Your task to perform on an android device: Go to settings Image 0: 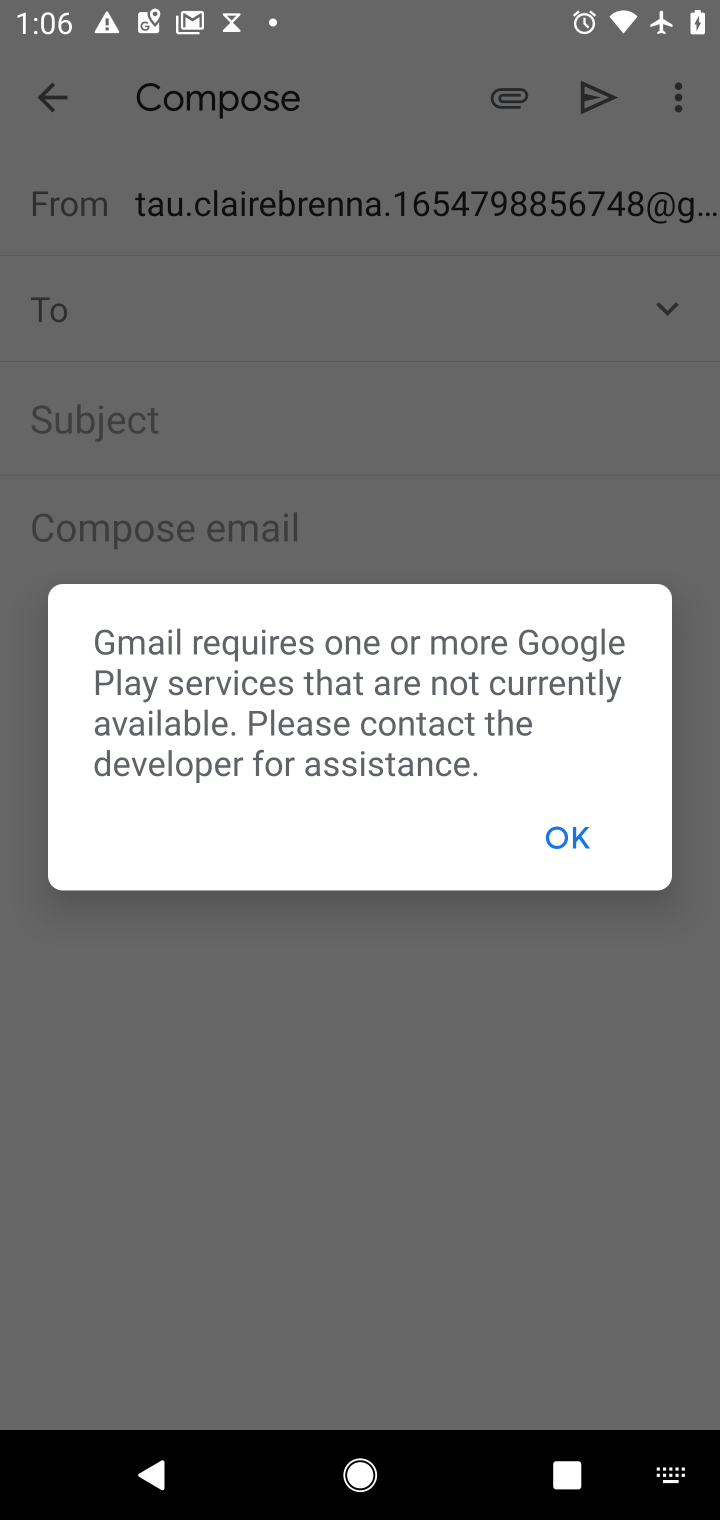
Step 0: press home button
Your task to perform on an android device: Go to settings Image 1: 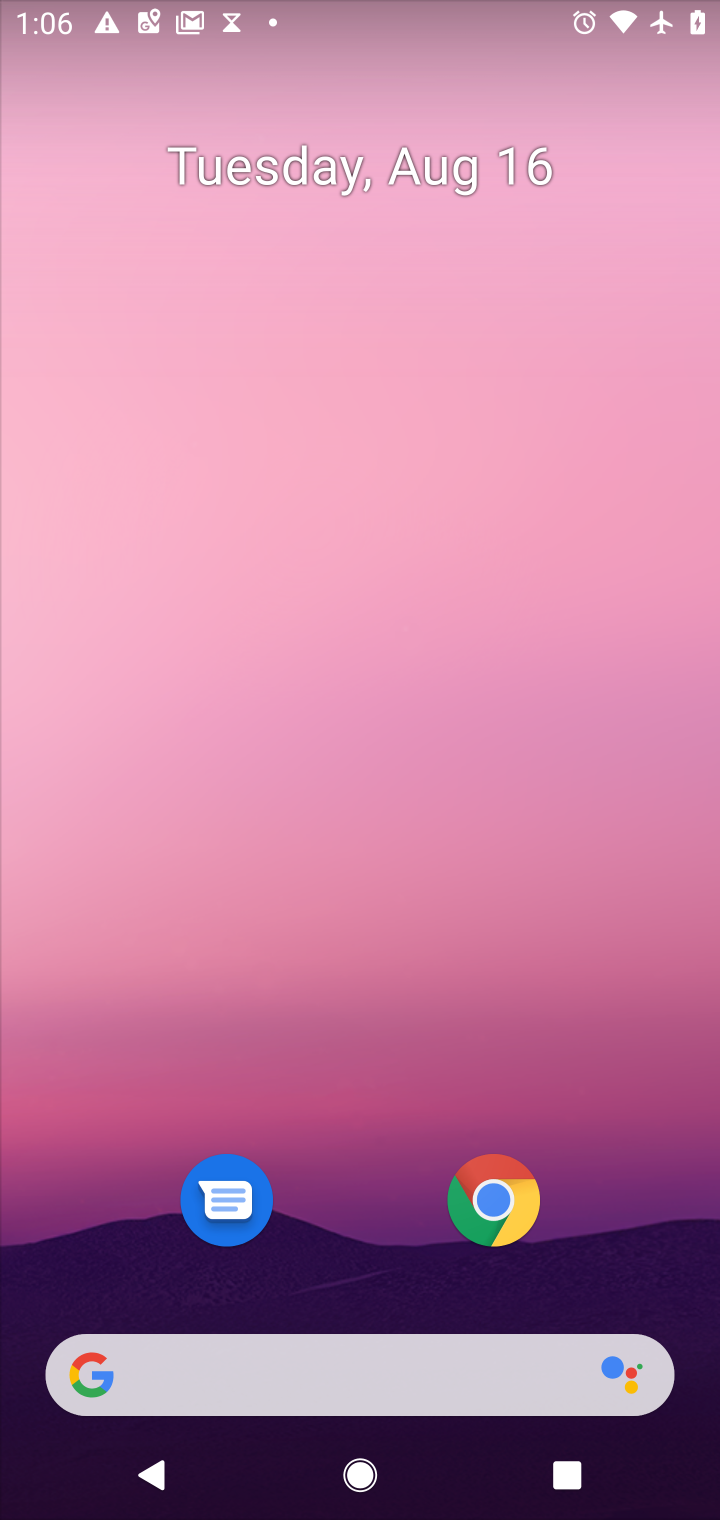
Step 1: click (257, 247)
Your task to perform on an android device: Go to settings Image 2: 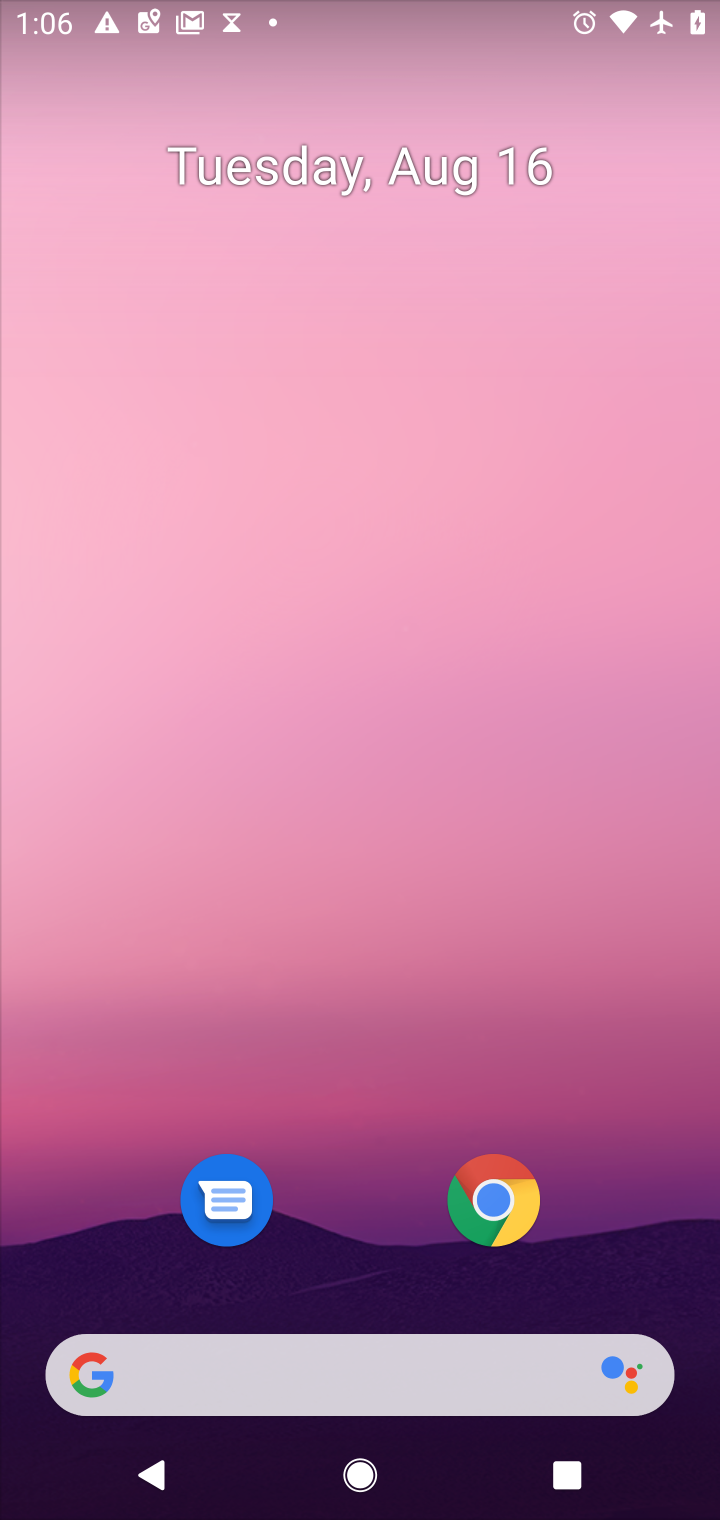
Step 2: drag from (363, 810) to (377, 427)
Your task to perform on an android device: Go to settings Image 3: 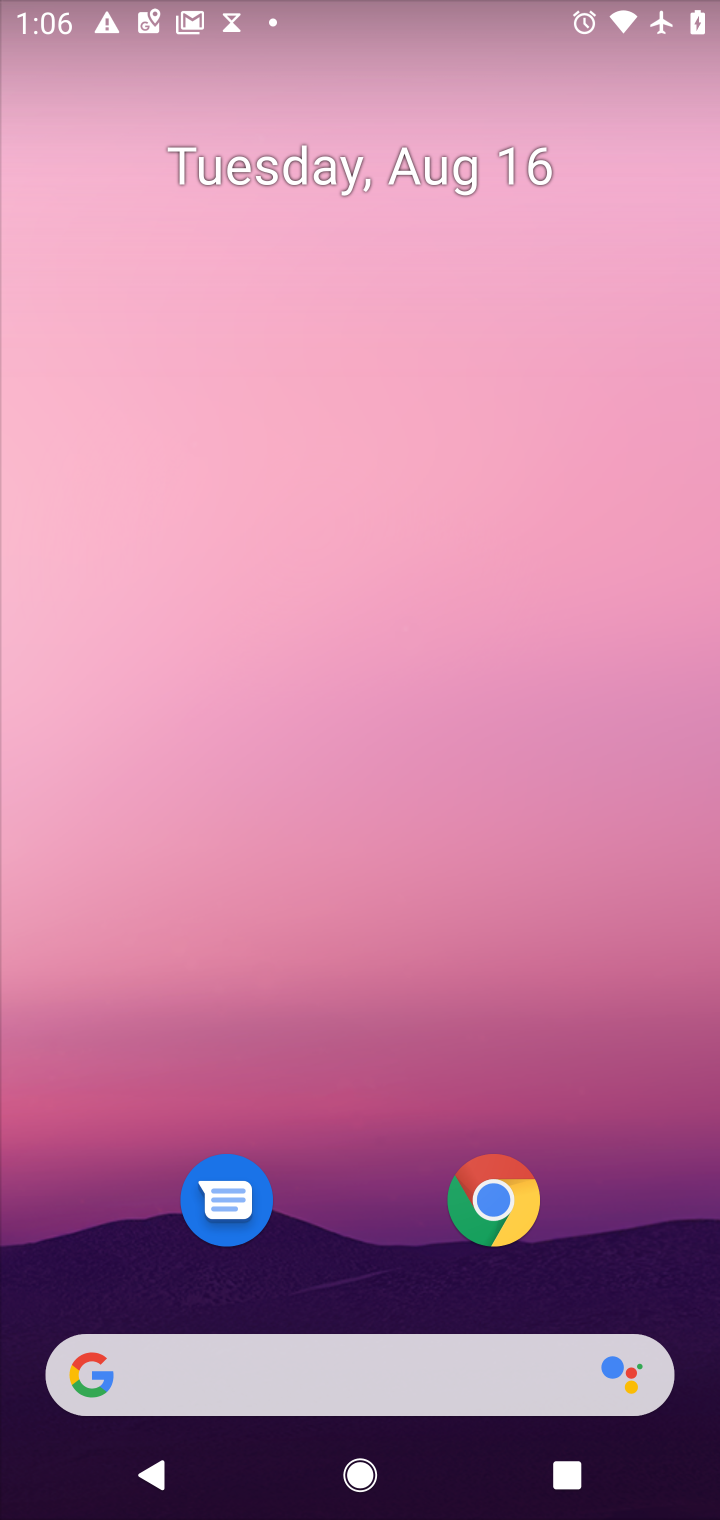
Step 3: drag from (354, 692) to (354, 274)
Your task to perform on an android device: Go to settings Image 4: 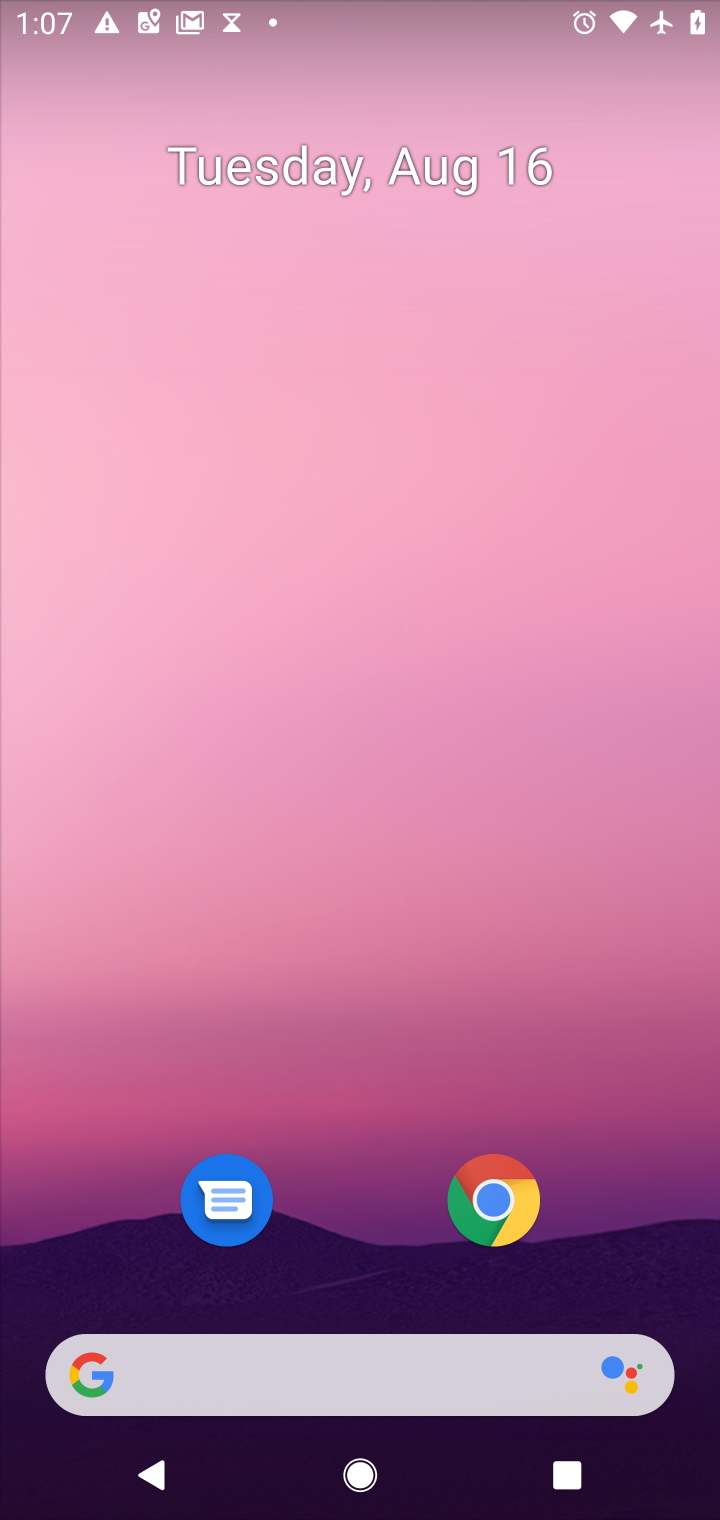
Step 4: drag from (334, 749) to (349, 159)
Your task to perform on an android device: Go to settings Image 5: 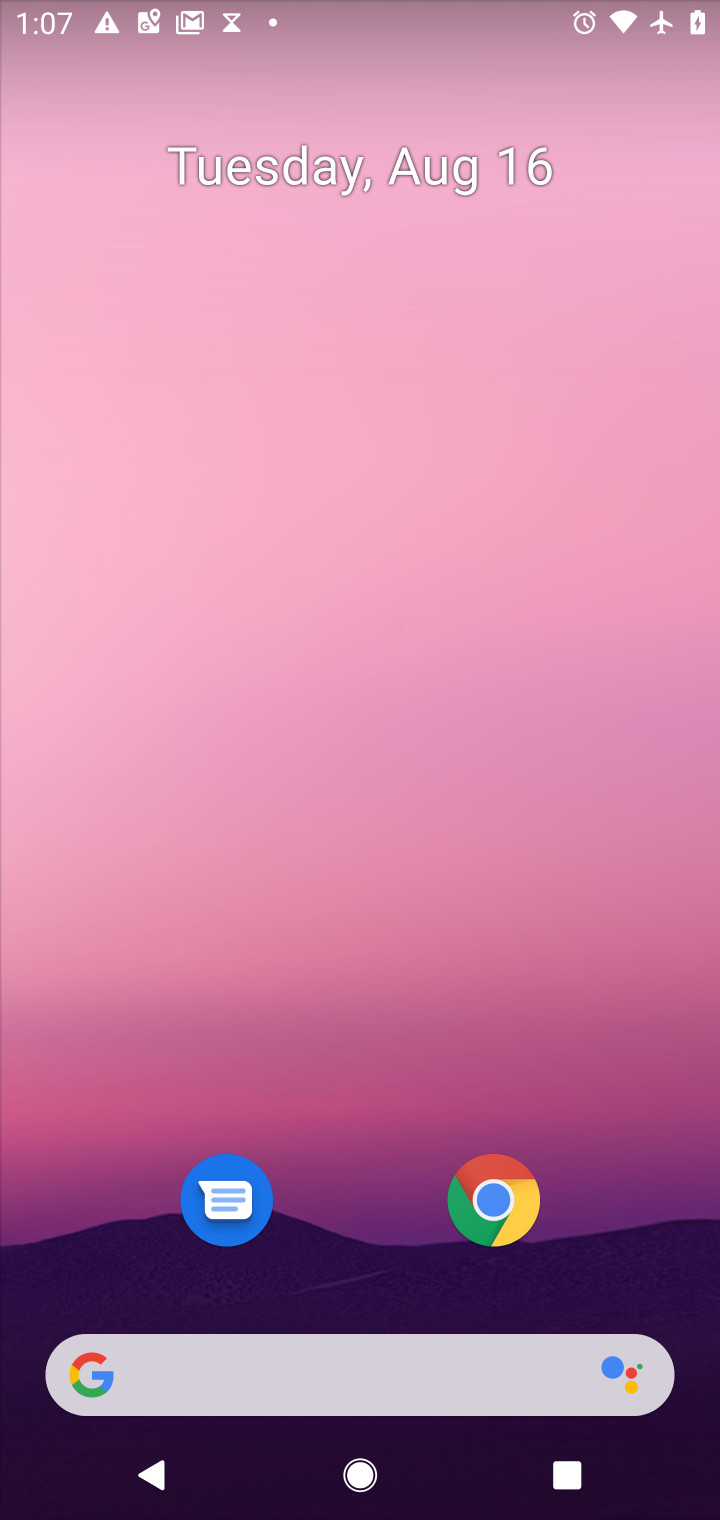
Step 5: drag from (341, 713) to (341, 326)
Your task to perform on an android device: Go to settings Image 6: 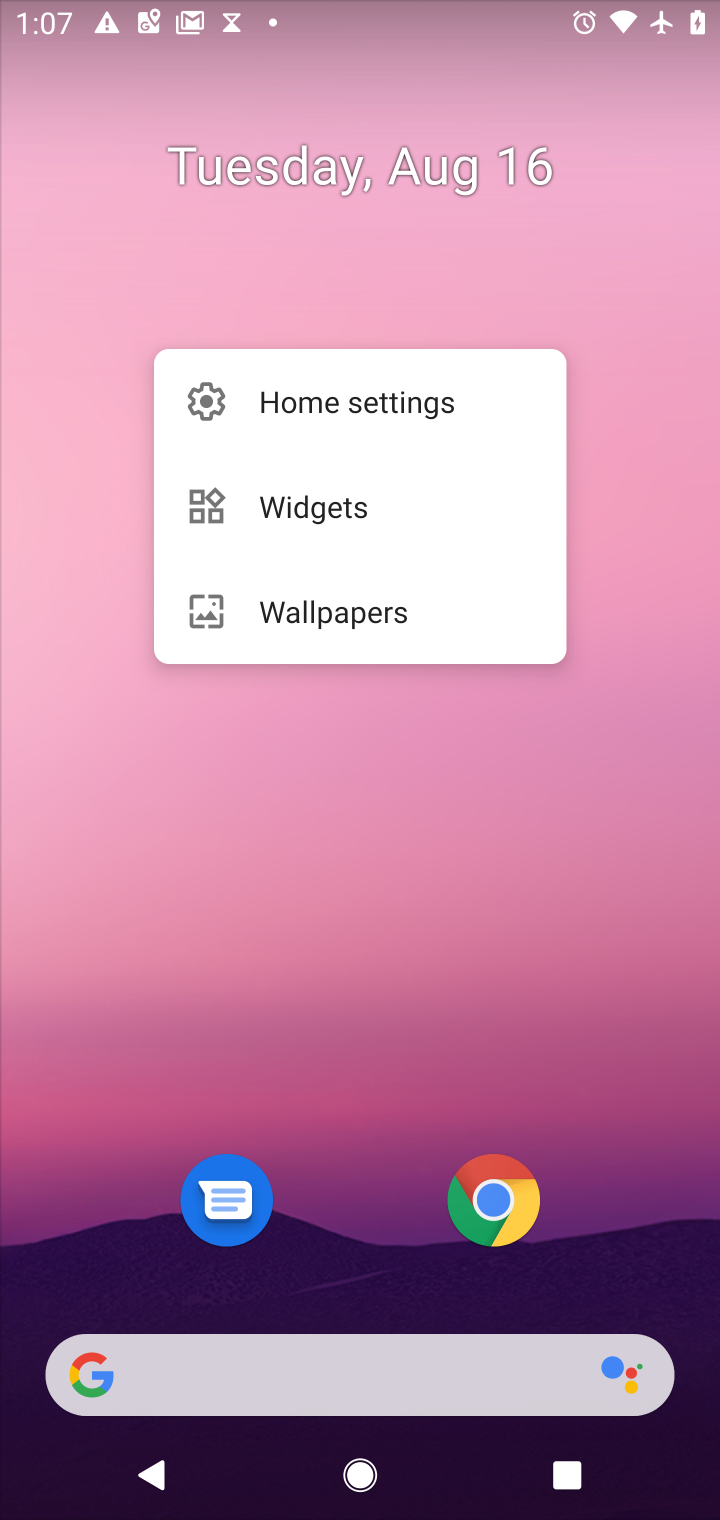
Step 6: click (344, 987)
Your task to perform on an android device: Go to settings Image 7: 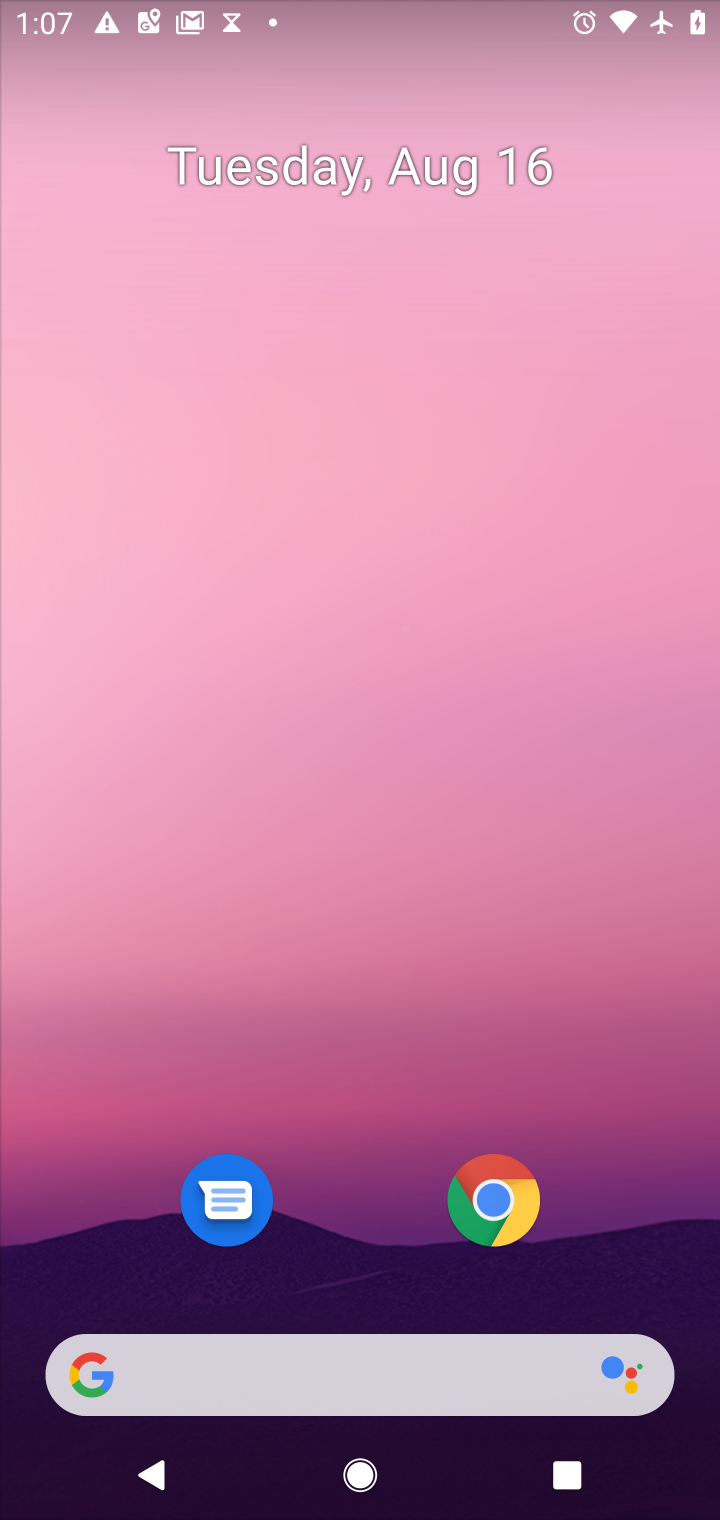
Step 7: click (370, 169)
Your task to perform on an android device: Go to settings Image 8: 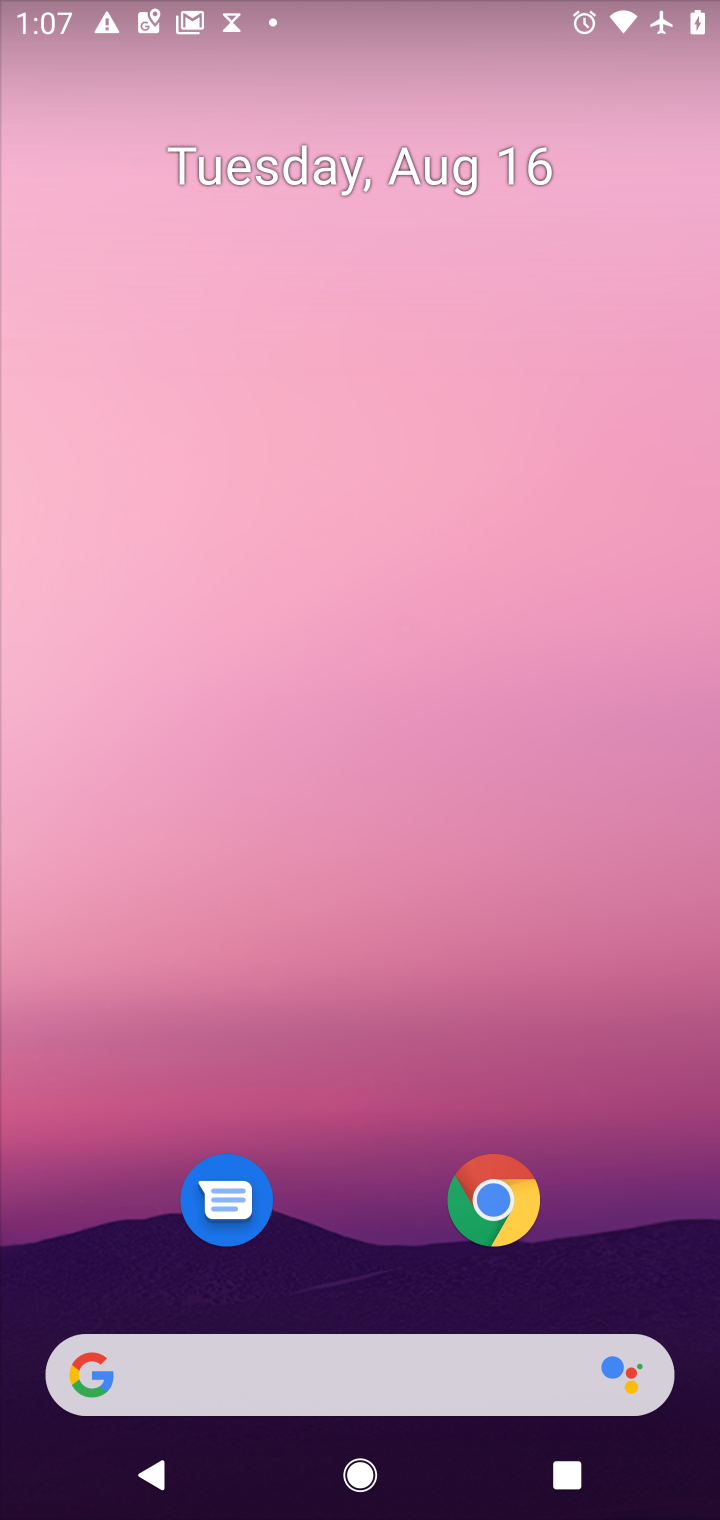
Step 8: drag from (348, 1239) to (385, 153)
Your task to perform on an android device: Go to settings Image 9: 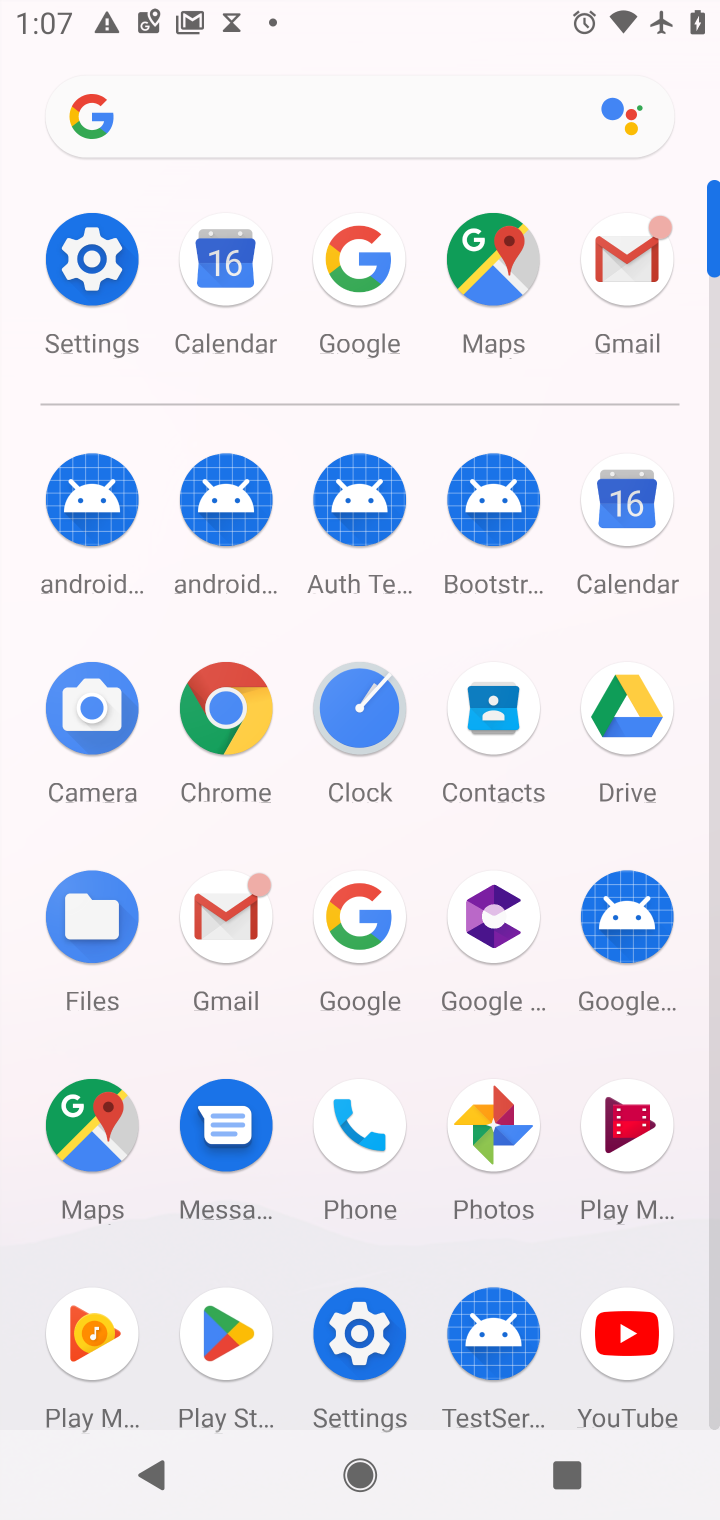
Step 9: click (83, 283)
Your task to perform on an android device: Go to settings Image 10: 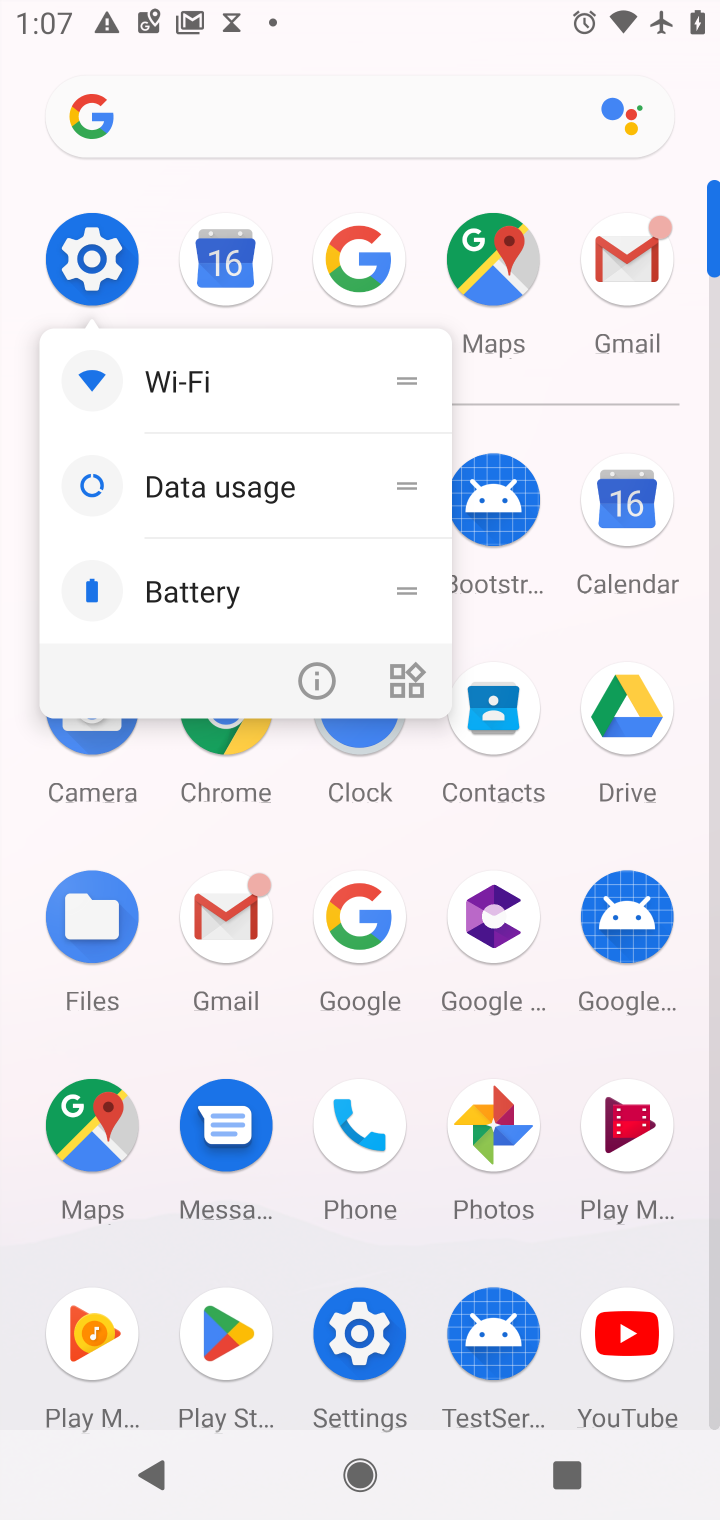
Step 10: click (81, 274)
Your task to perform on an android device: Go to settings Image 11: 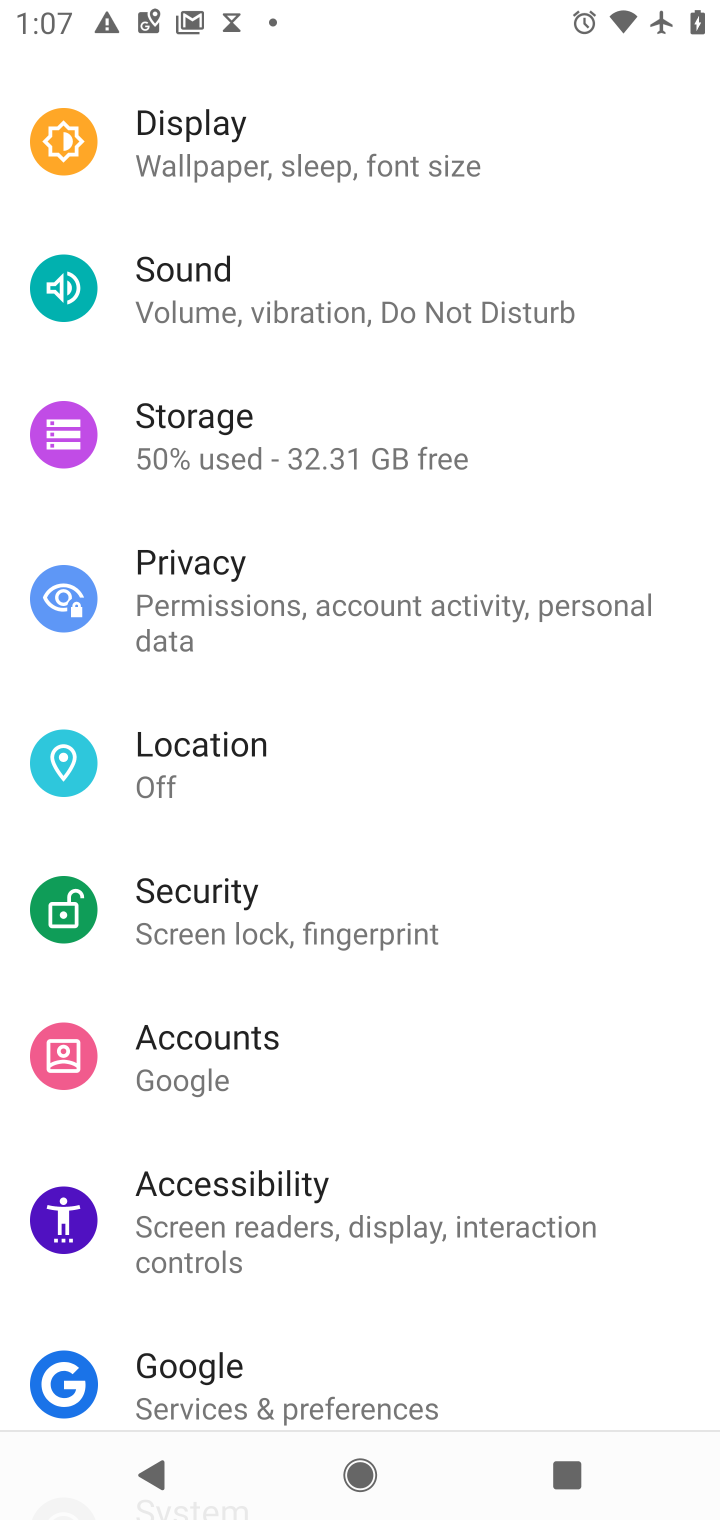
Step 11: task complete